Your task to perform on an android device: Open accessibility settings Image 0: 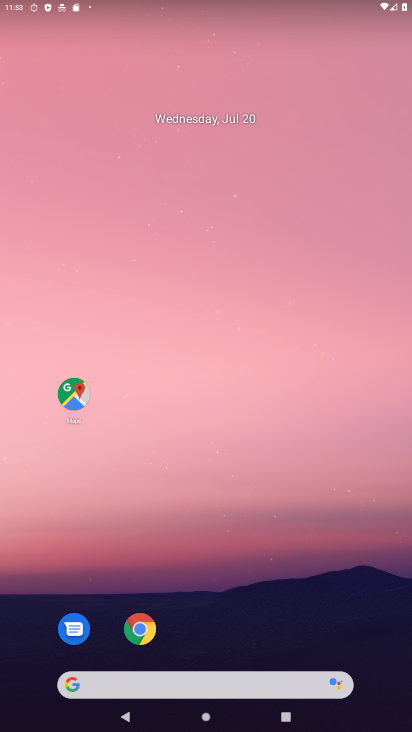
Step 0: drag from (209, 508) to (337, 148)
Your task to perform on an android device: Open accessibility settings Image 1: 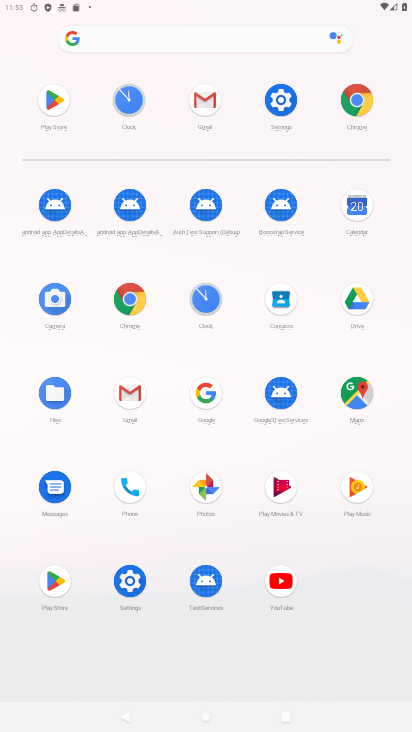
Step 1: click (274, 99)
Your task to perform on an android device: Open accessibility settings Image 2: 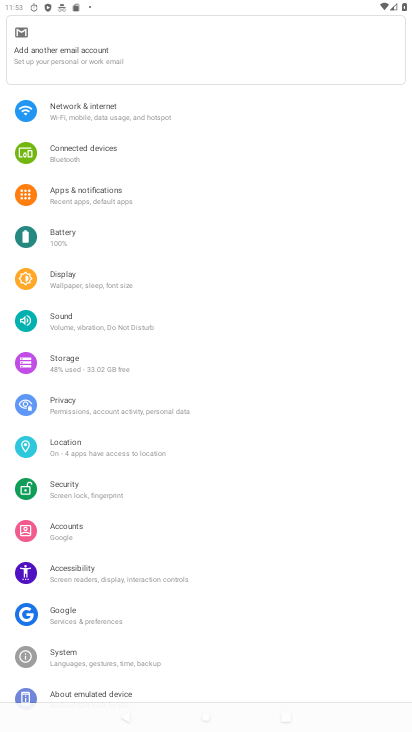
Step 2: click (73, 568)
Your task to perform on an android device: Open accessibility settings Image 3: 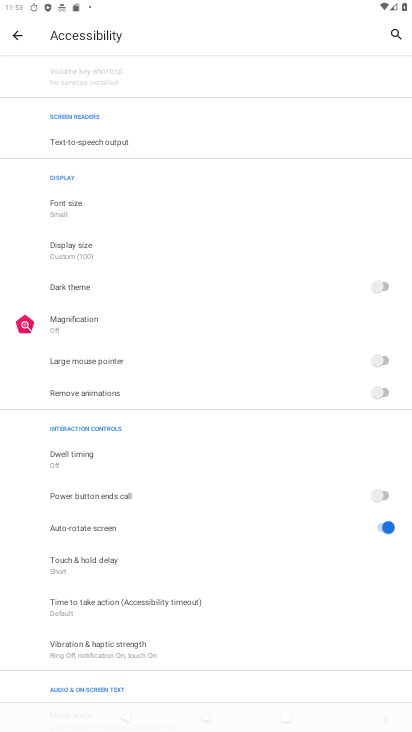
Step 3: task complete